Your task to perform on an android device: toggle priority inbox in the gmail app Image 0: 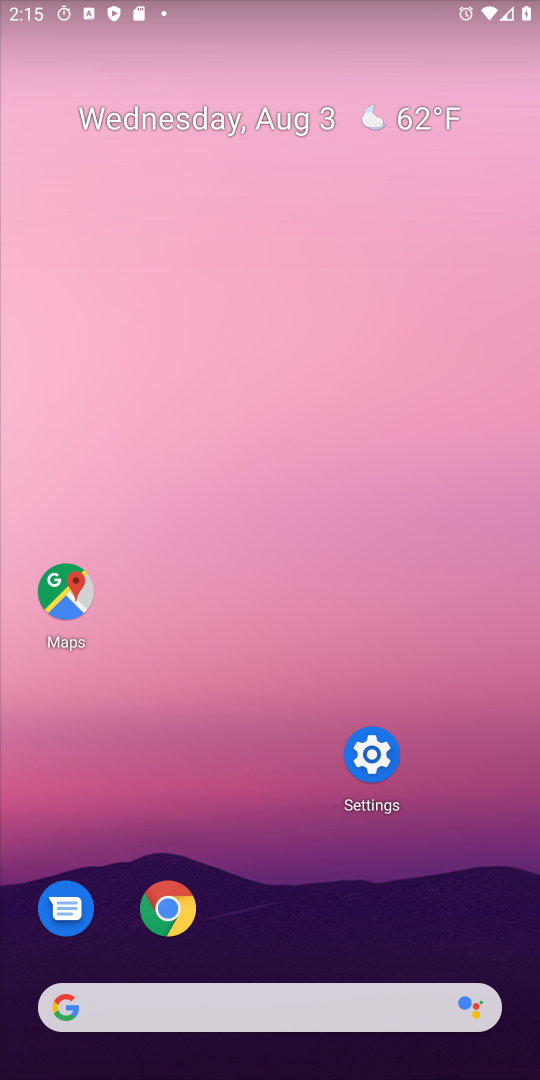
Step 0: drag from (318, 892) to (336, 43)
Your task to perform on an android device: toggle priority inbox in the gmail app Image 1: 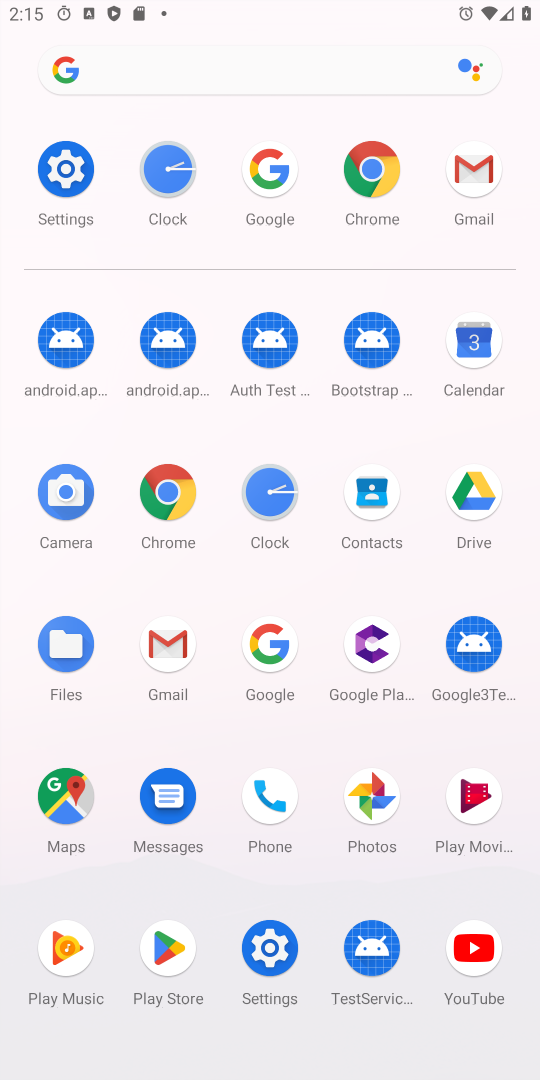
Step 1: click (178, 661)
Your task to perform on an android device: toggle priority inbox in the gmail app Image 2: 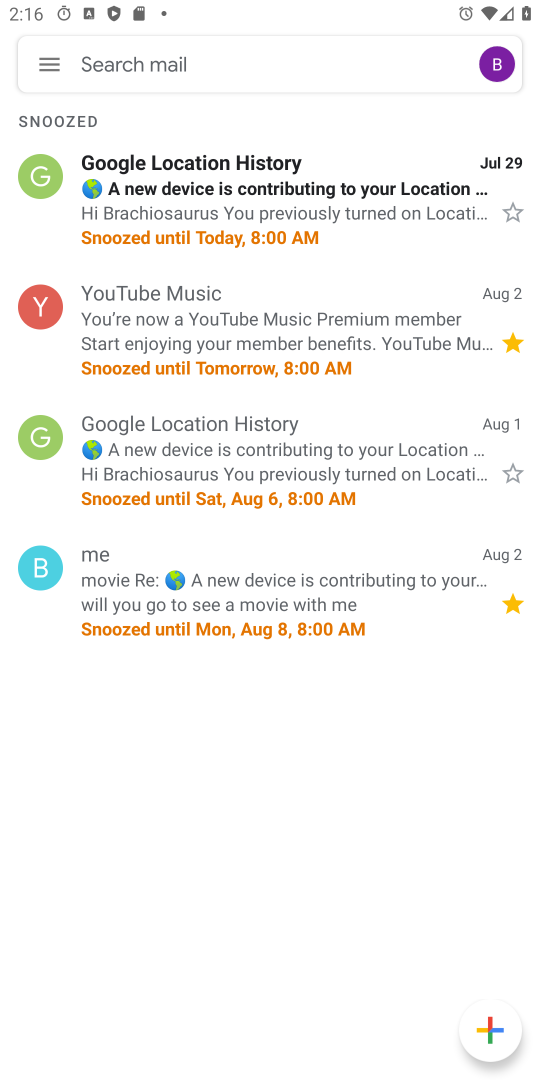
Step 2: click (55, 71)
Your task to perform on an android device: toggle priority inbox in the gmail app Image 3: 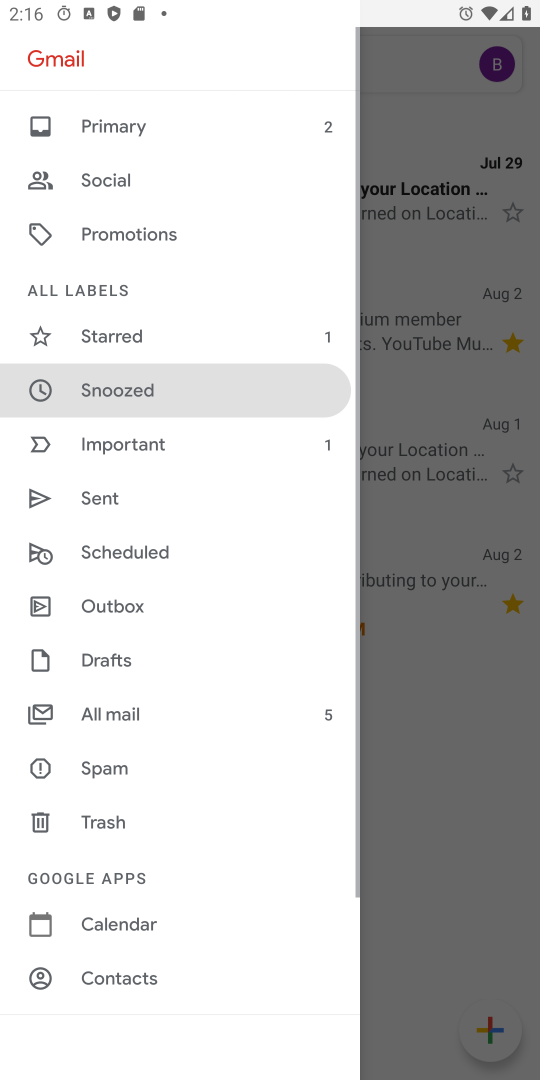
Step 3: drag from (164, 966) to (189, 469)
Your task to perform on an android device: toggle priority inbox in the gmail app Image 4: 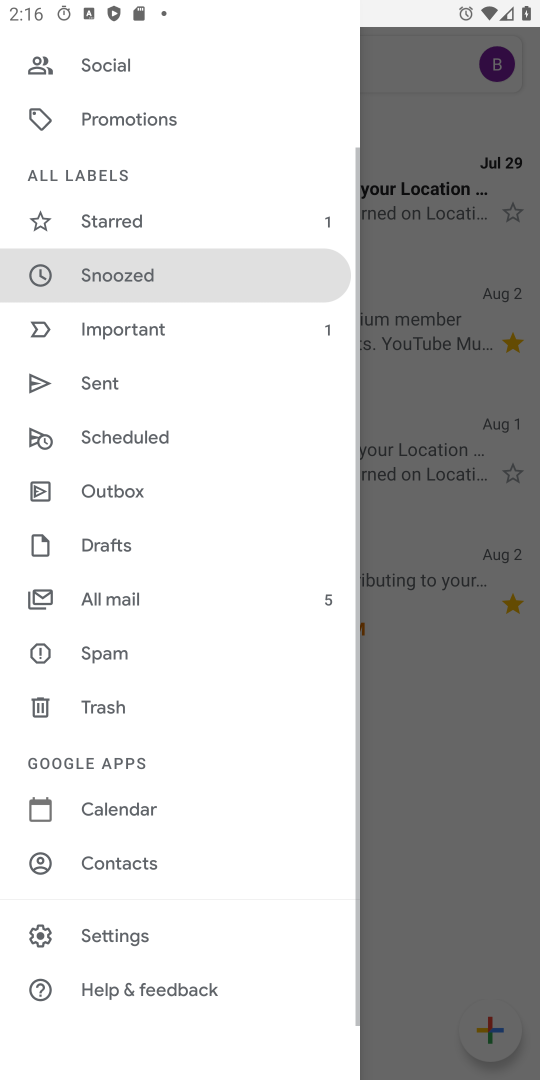
Step 4: click (130, 935)
Your task to perform on an android device: toggle priority inbox in the gmail app Image 5: 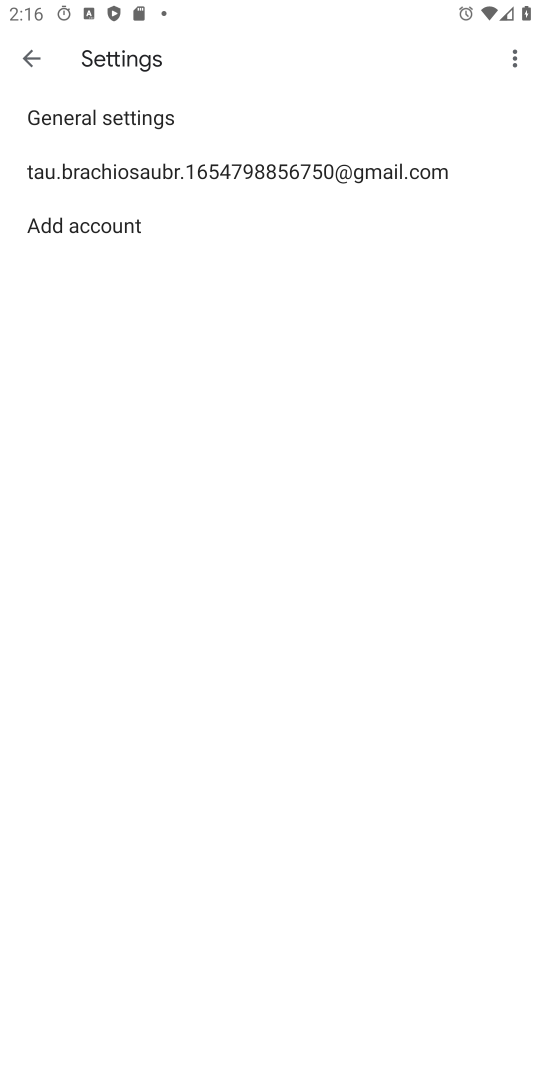
Step 5: click (323, 173)
Your task to perform on an android device: toggle priority inbox in the gmail app Image 6: 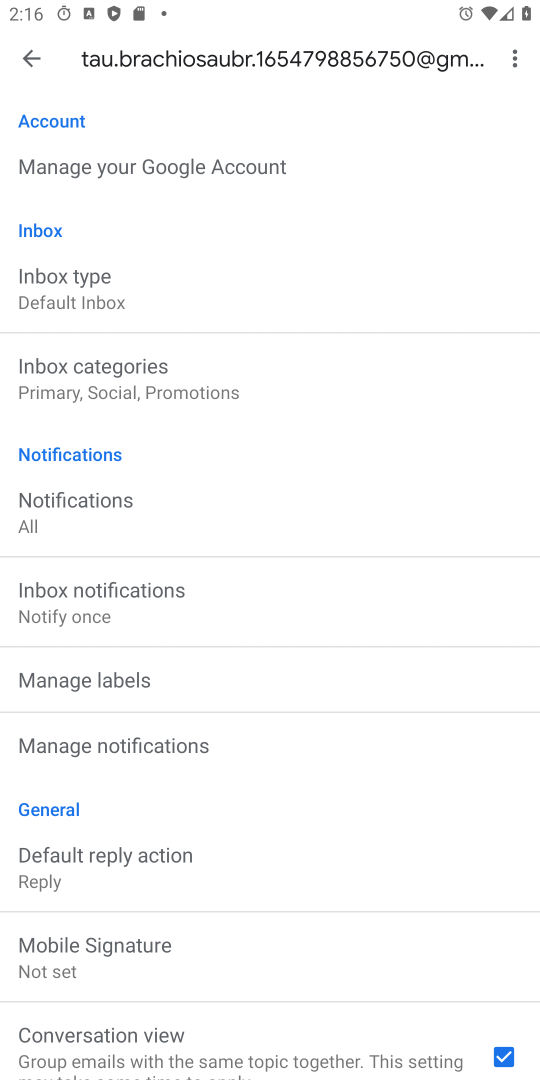
Step 6: click (210, 300)
Your task to perform on an android device: toggle priority inbox in the gmail app Image 7: 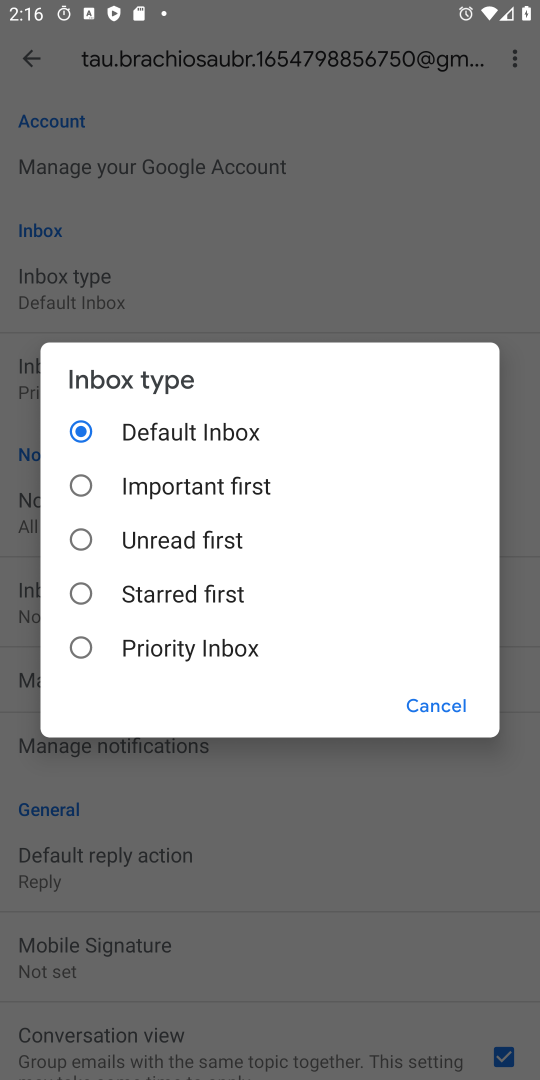
Step 7: click (204, 645)
Your task to perform on an android device: toggle priority inbox in the gmail app Image 8: 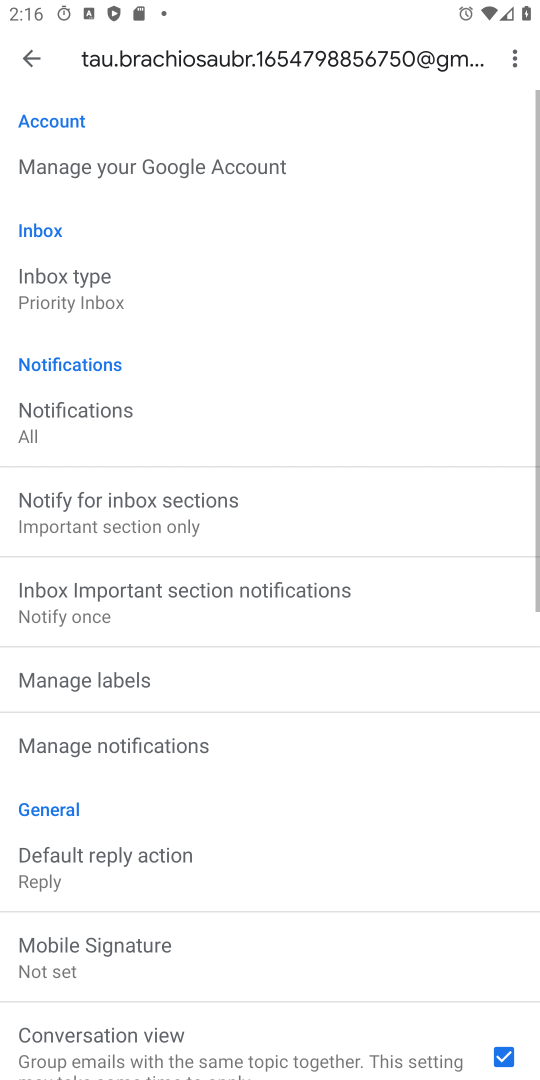
Step 8: task complete